Your task to perform on an android device: empty trash in the gmail app Image 0: 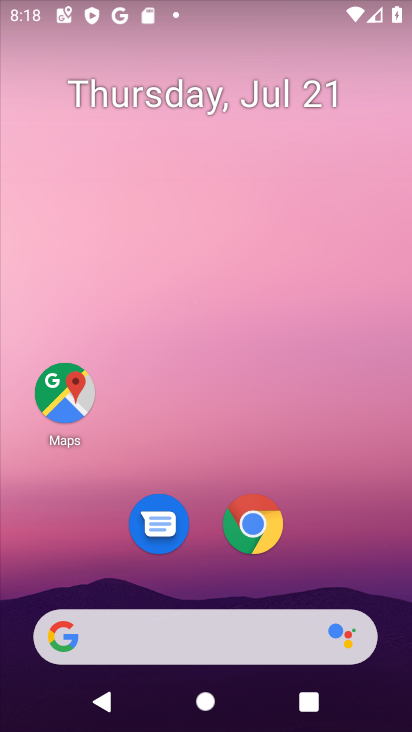
Step 0: drag from (223, 622) to (314, 119)
Your task to perform on an android device: empty trash in the gmail app Image 1: 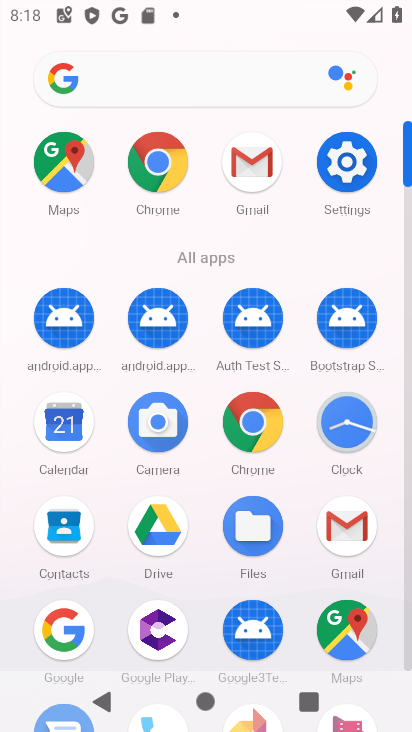
Step 1: click (254, 170)
Your task to perform on an android device: empty trash in the gmail app Image 2: 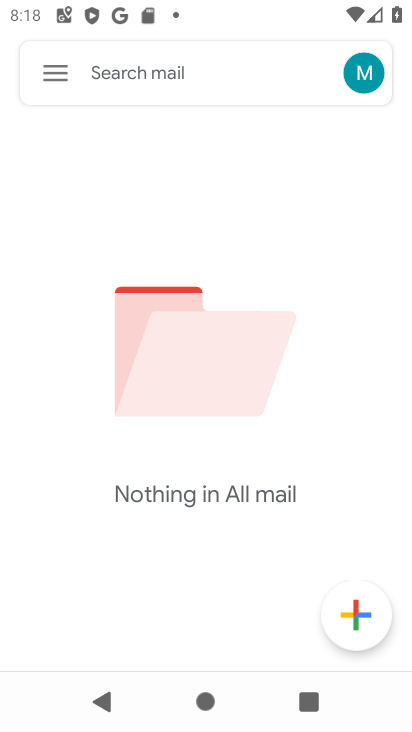
Step 2: click (58, 69)
Your task to perform on an android device: empty trash in the gmail app Image 3: 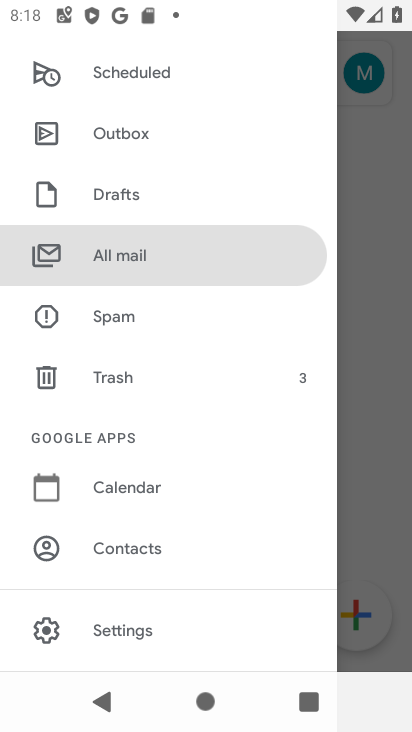
Step 3: click (110, 378)
Your task to perform on an android device: empty trash in the gmail app Image 4: 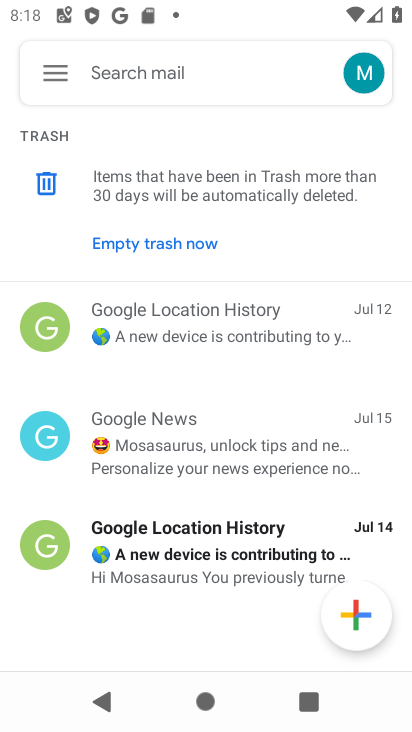
Step 4: click (142, 248)
Your task to perform on an android device: empty trash in the gmail app Image 5: 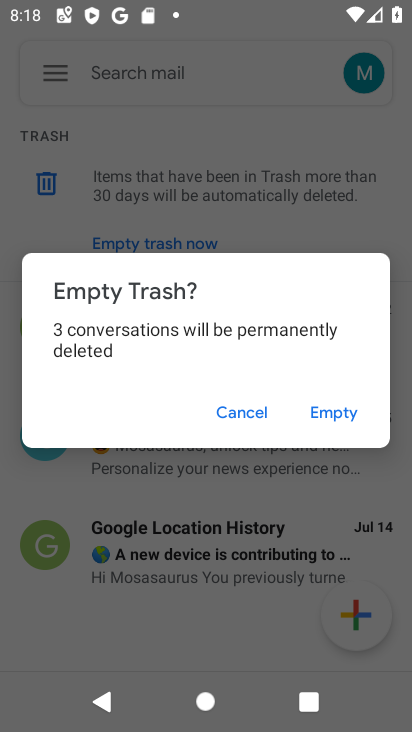
Step 5: click (326, 421)
Your task to perform on an android device: empty trash in the gmail app Image 6: 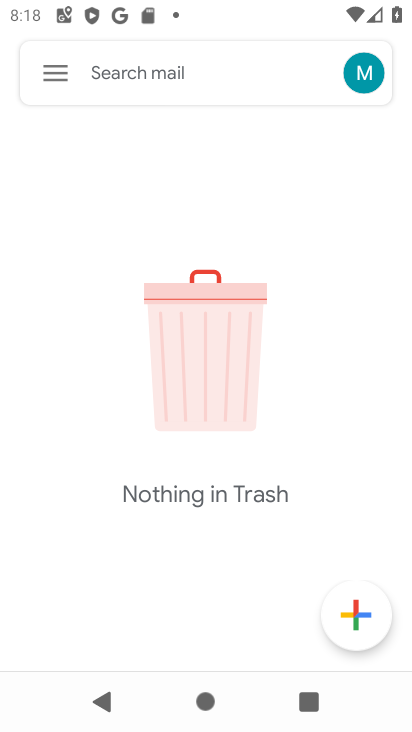
Step 6: task complete